Your task to perform on an android device: install app "Google Keep" Image 0: 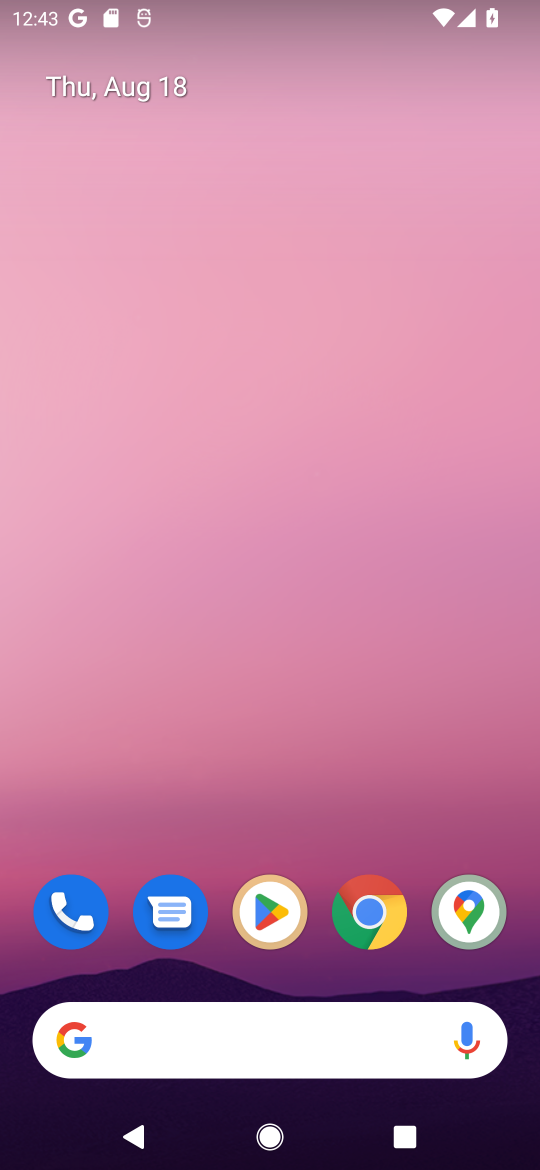
Step 0: click (243, 902)
Your task to perform on an android device: install app "Google Keep" Image 1: 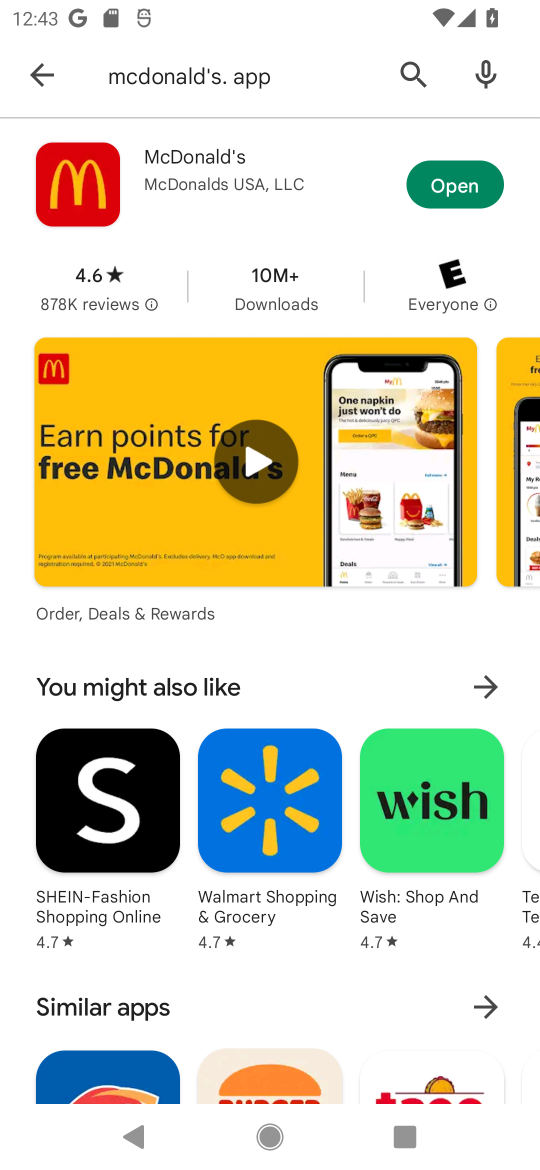
Step 1: click (405, 50)
Your task to perform on an android device: install app "Google Keep" Image 2: 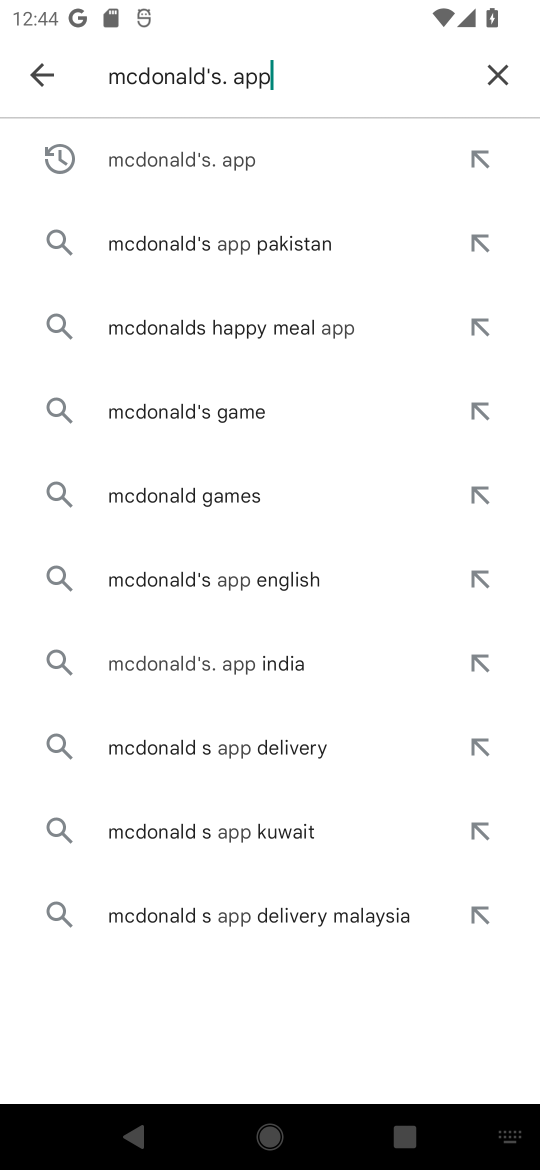
Step 2: click (502, 63)
Your task to perform on an android device: install app "Google Keep" Image 3: 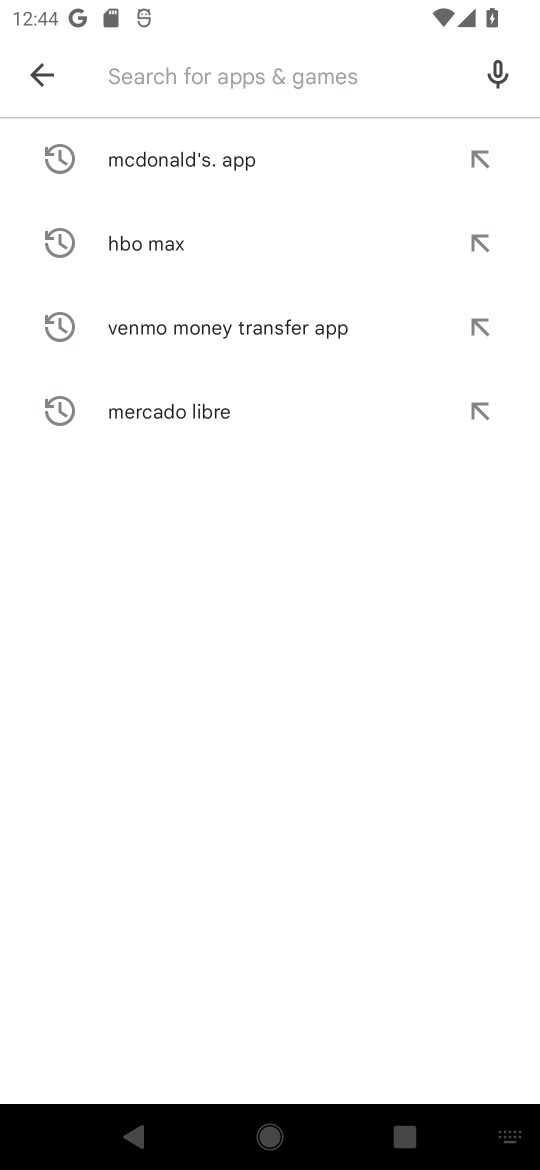
Step 3: click (210, 97)
Your task to perform on an android device: install app "Google Keep" Image 4: 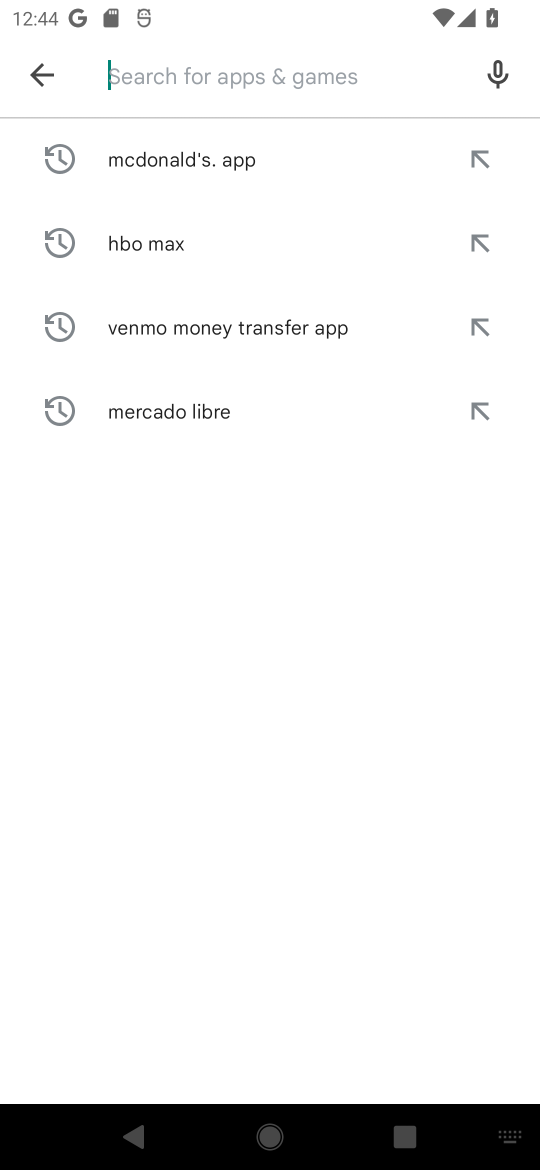
Step 4: type "Google Keep"
Your task to perform on an android device: install app "Google Keep" Image 5: 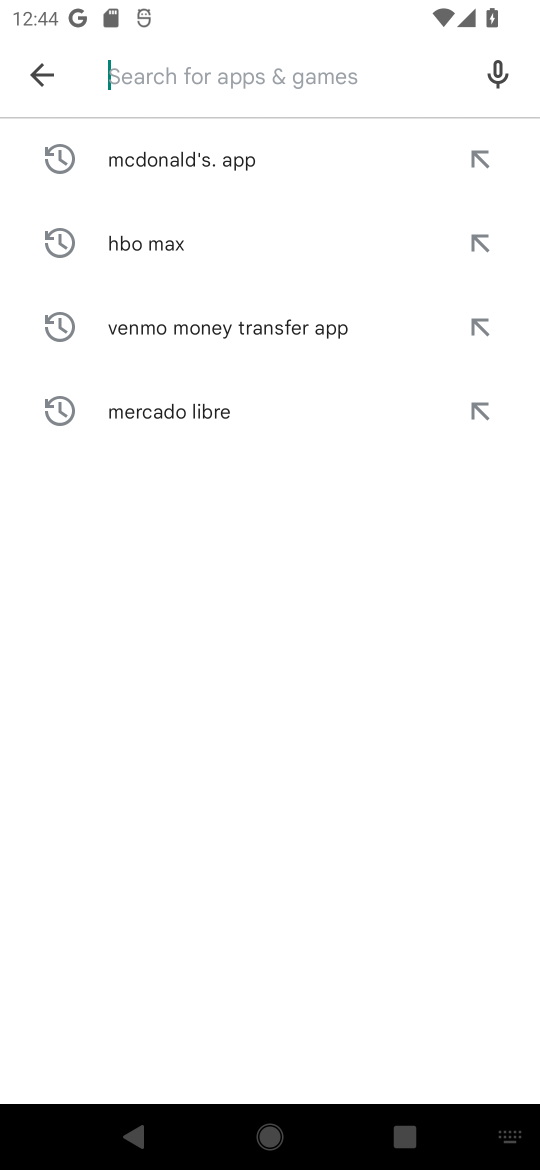
Step 5: click (282, 713)
Your task to perform on an android device: install app "Google Keep" Image 6: 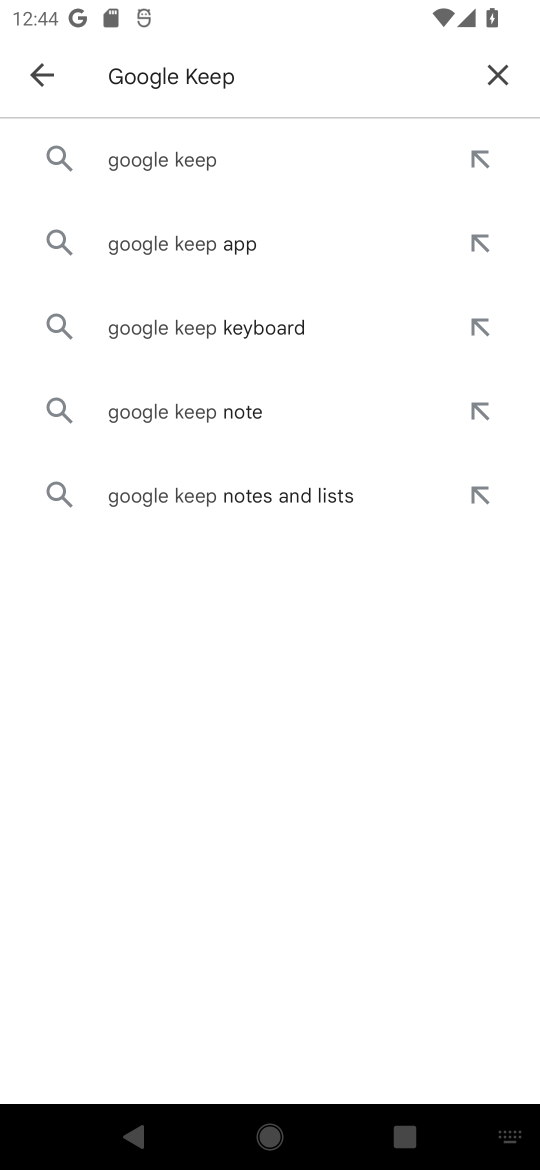
Step 6: click (218, 151)
Your task to perform on an android device: install app "Google Keep" Image 7: 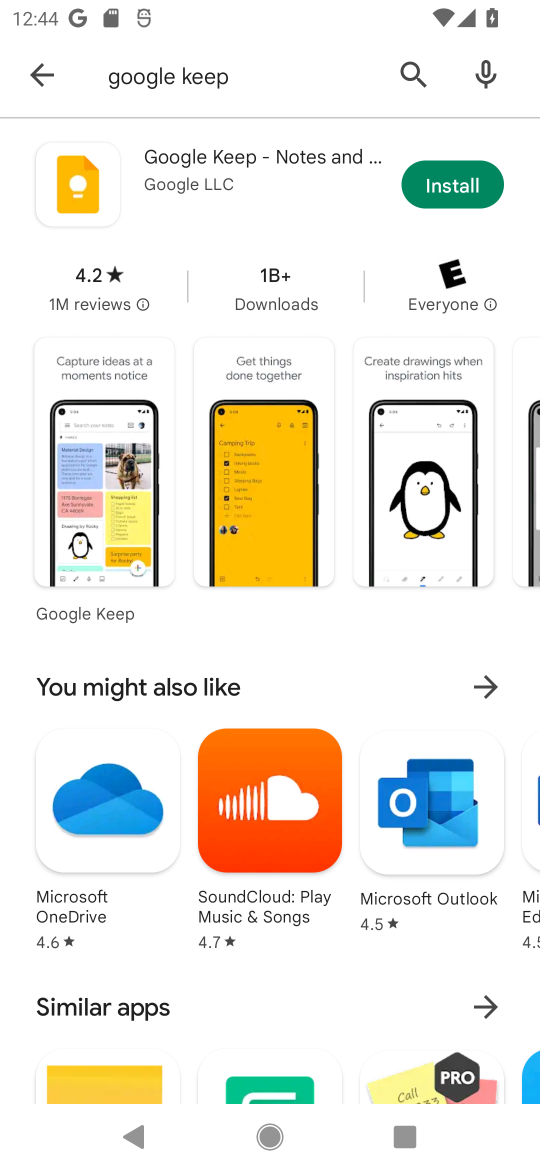
Step 7: click (461, 168)
Your task to perform on an android device: install app "Google Keep" Image 8: 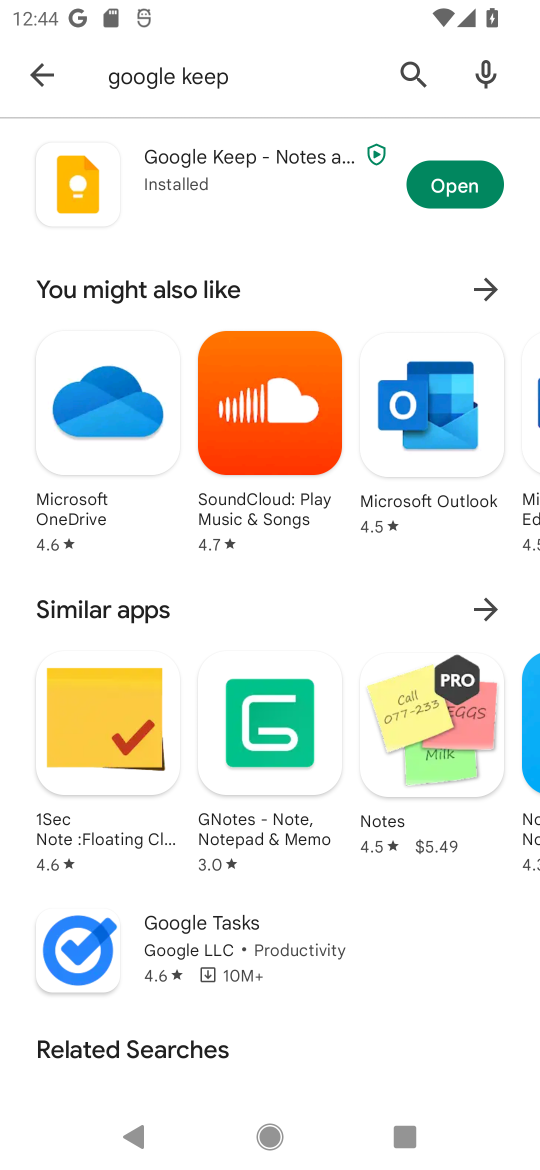
Step 8: task complete